Your task to perform on an android device: Open maps Image 0: 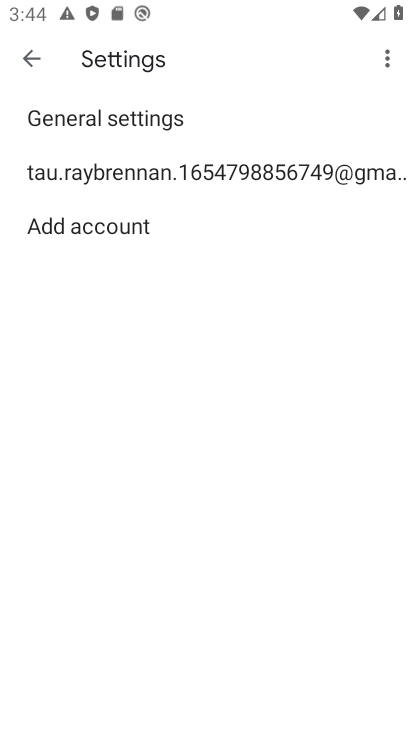
Step 0: press home button
Your task to perform on an android device: Open maps Image 1: 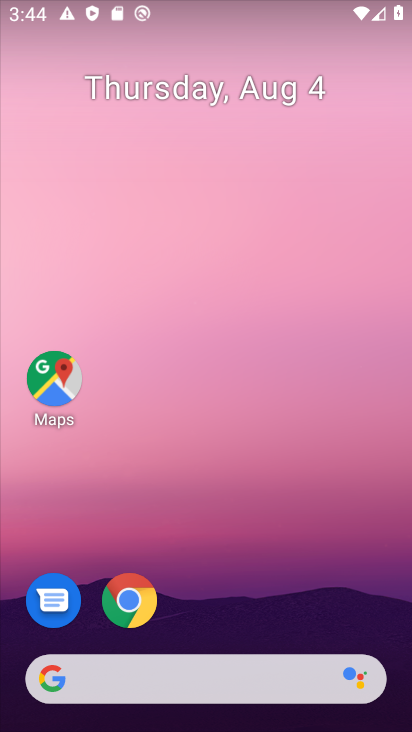
Step 1: click (47, 373)
Your task to perform on an android device: Open maps Image 2: 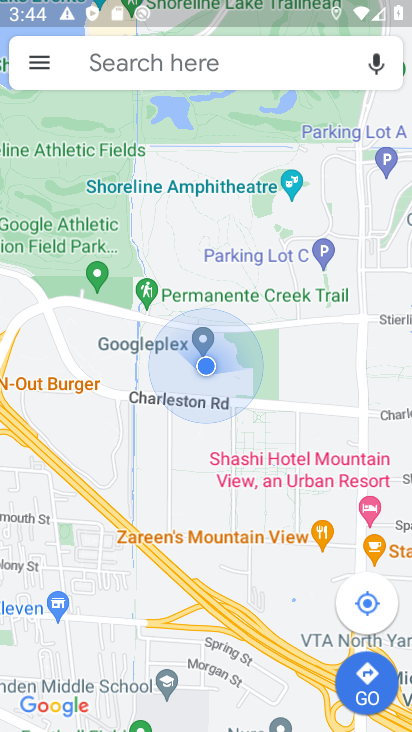
Step 2: task complete